Your task to perform on an android device: toggle data saver in the chrome app Image 0: 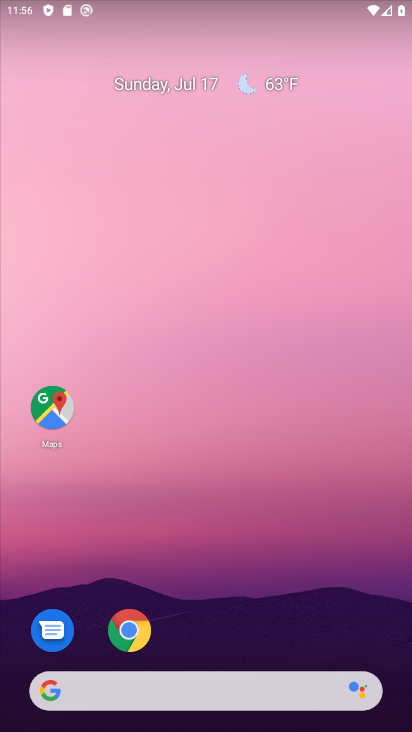
Step 0: click (136, 635)
Your task to perform on an android device: toggle data saver in the chrome app Image 1: 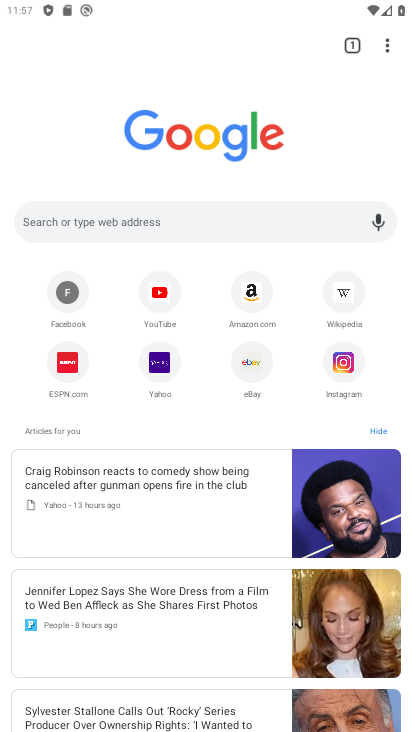
Step 1: drag from (395, 44) to (293, 383)
Your task to perform on an android device: toggle data saver in the chrome app Image 2: 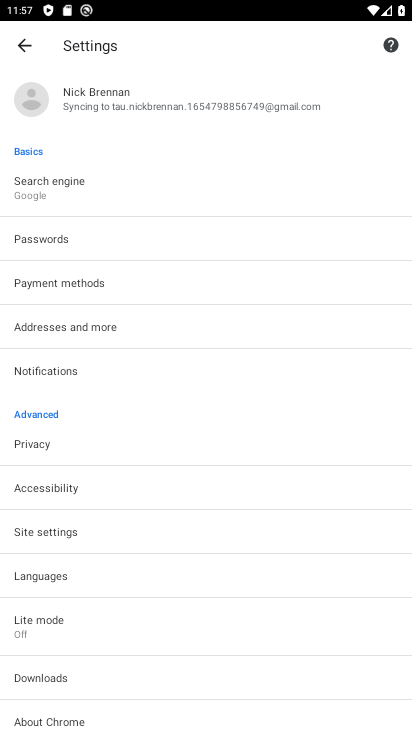
Step 2: click (108, 644)
Your task to perform on an android device: toggle data saver in the chrome app Image 3: 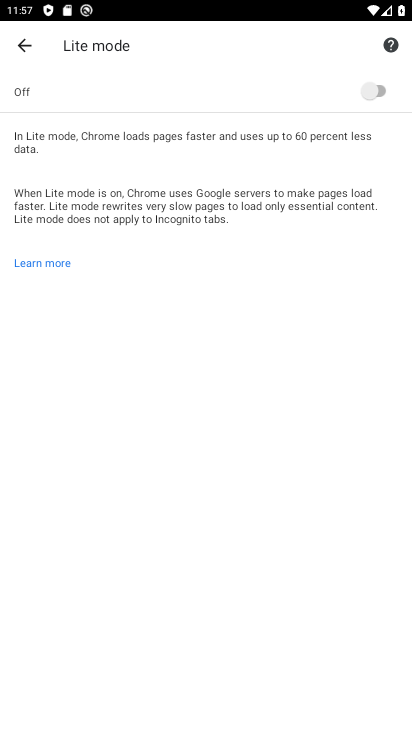
Step 3: click (390, 90)
Your task to perform on an android device: toggle data saver in the chrome app Image 4: 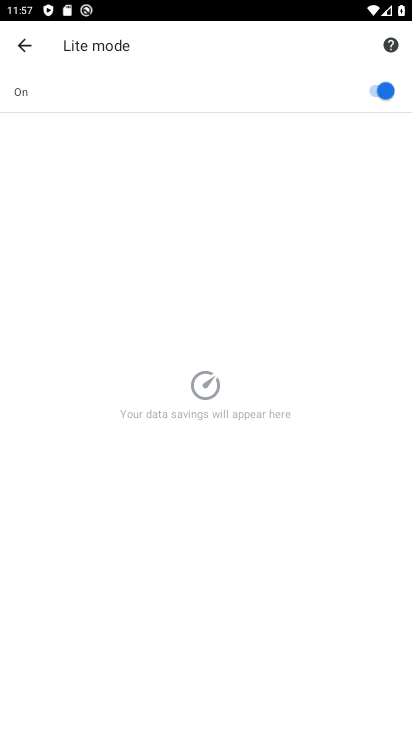
Step 4: task complete